Your task to perform on an android device: turn vacation reply on in the gmail app Image 0: 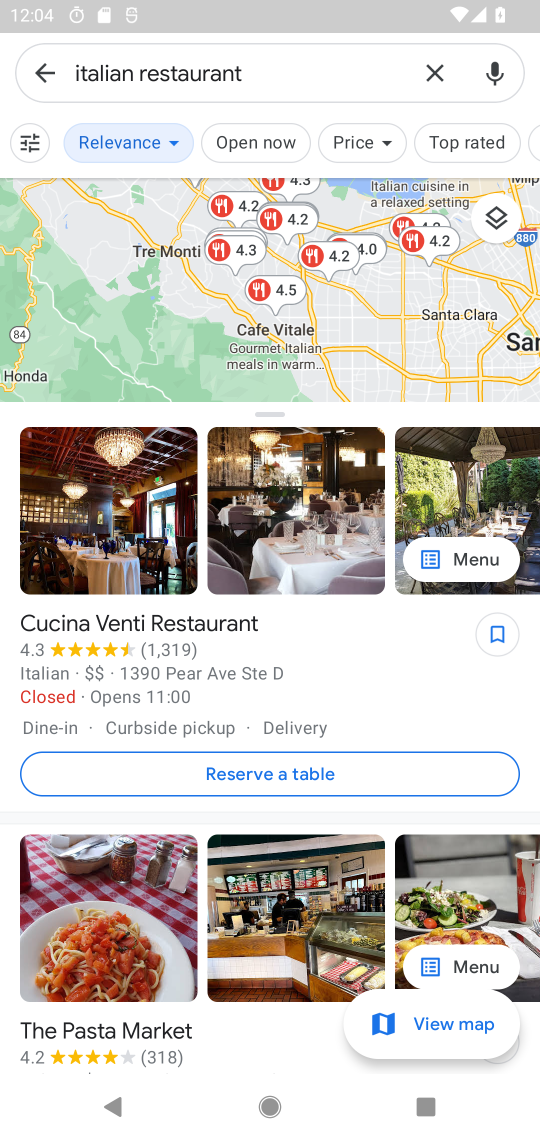
Step 0: press home button
Your task to perform on an android device: turn vacation reply on in the gmail app Image 1: 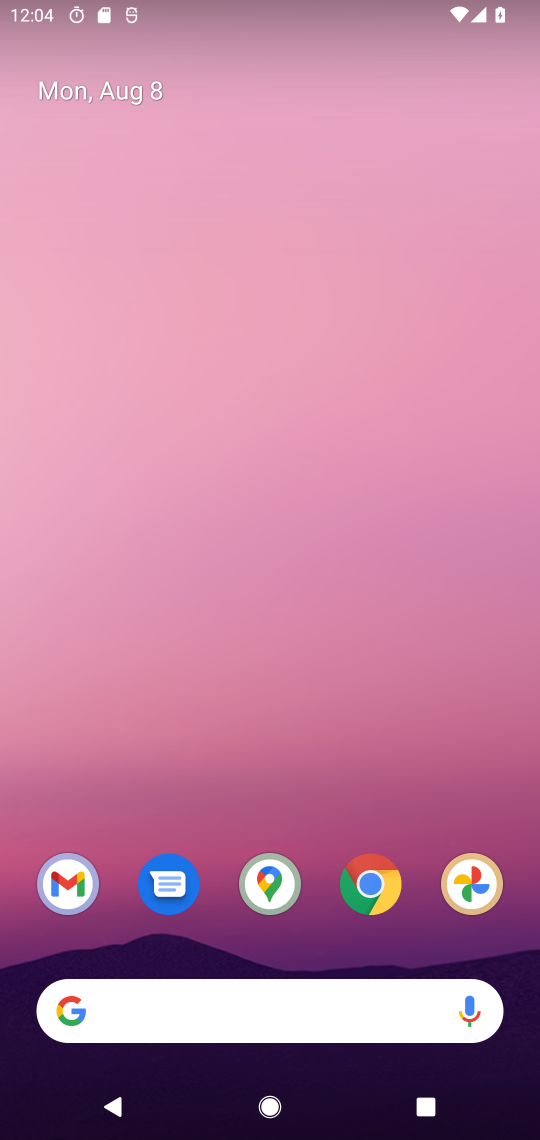
Step 1: click (58, 876)
Your task to perform on an android device: turn vacation reply on in the gmail app Image 2: 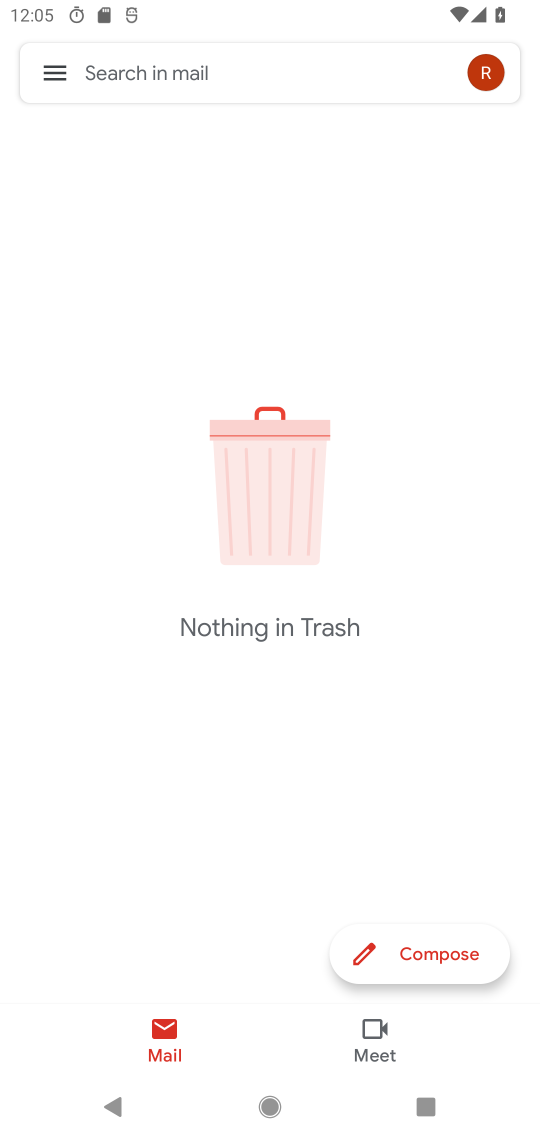
Step 2: click (57, 65)
Your task to perform on an android device: turn vacation reply on in the gmail app Image 3: 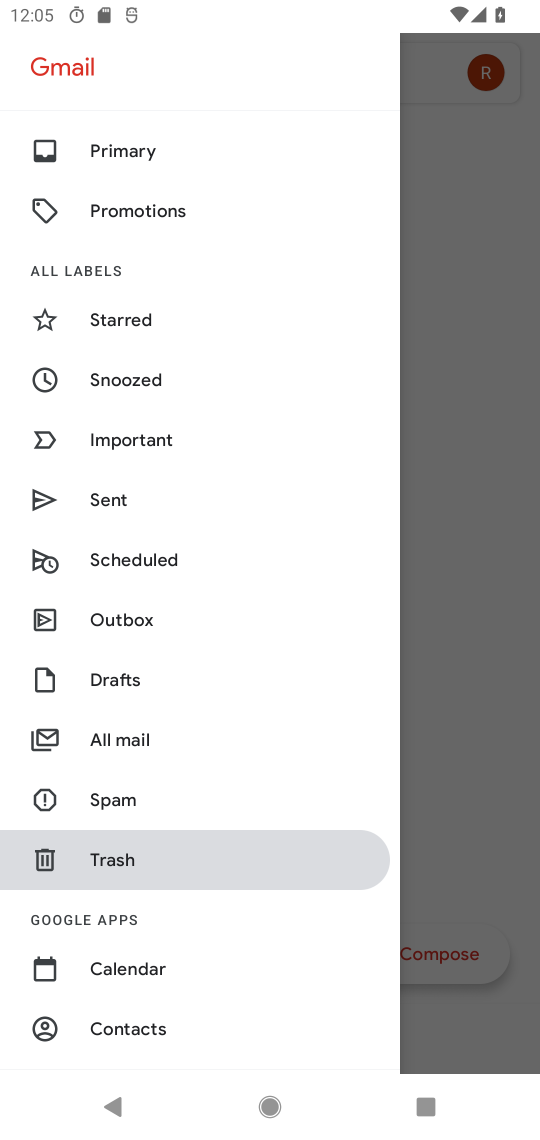
Step 3: drag from (209, 966) to (241, 426)
Your task to perform on an android device: turn vacation reply on in the gmail app Image 4: 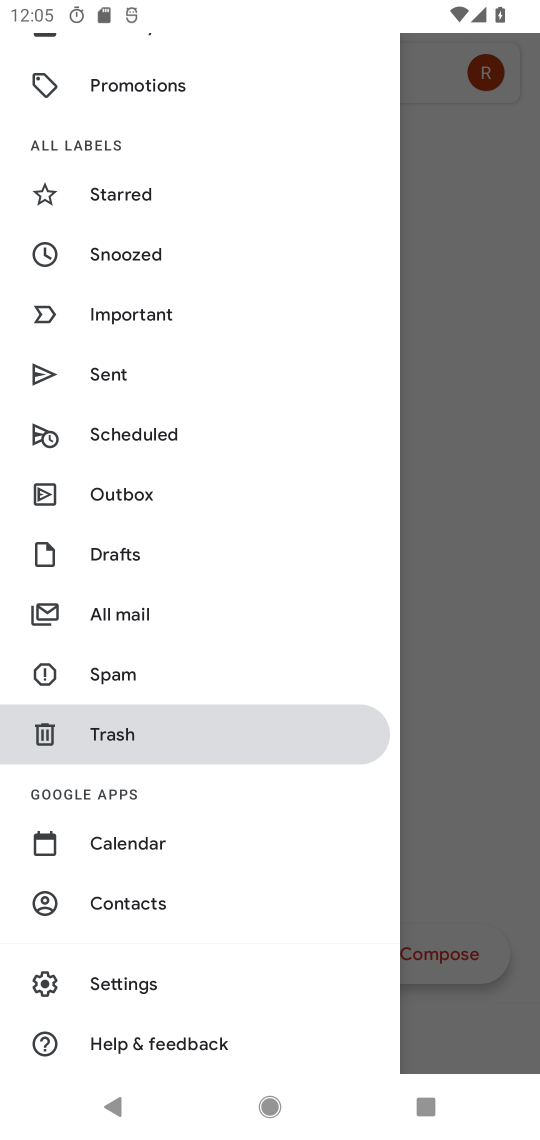
Step 4: click (127, 967)
Your task to perform on an android device: turn vacation reply on in the gmail app Image 5: 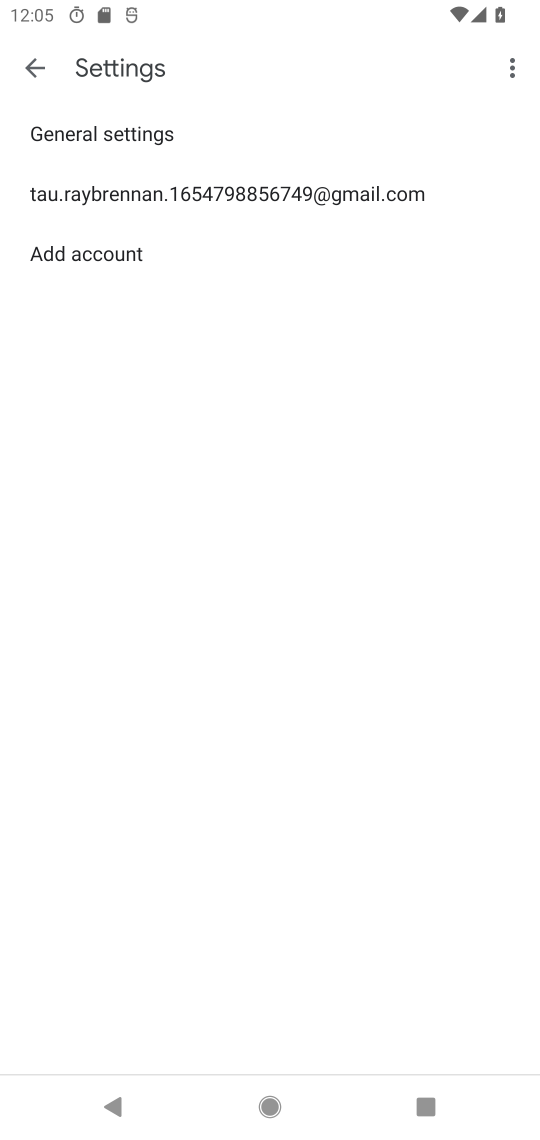
Step 5: click (207, 194)
Your task to perform on an android device: turn vacation reply on in the gmail app Image 6: 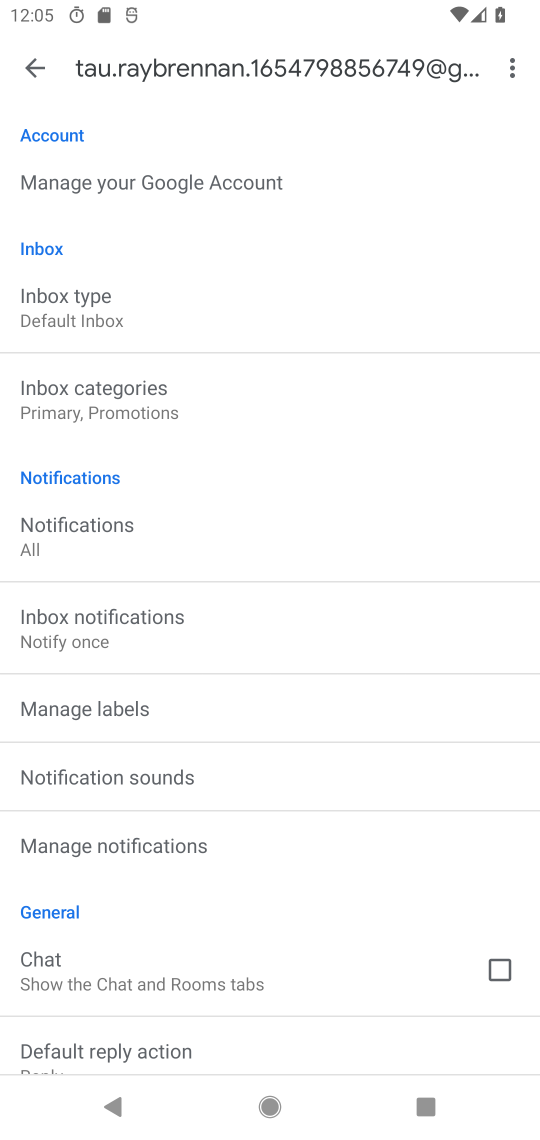
Step 6: drag from (125, 872) to (88, 501)
Your task to perform on an android device: turn vacation reply on in the gmail app Image 7: 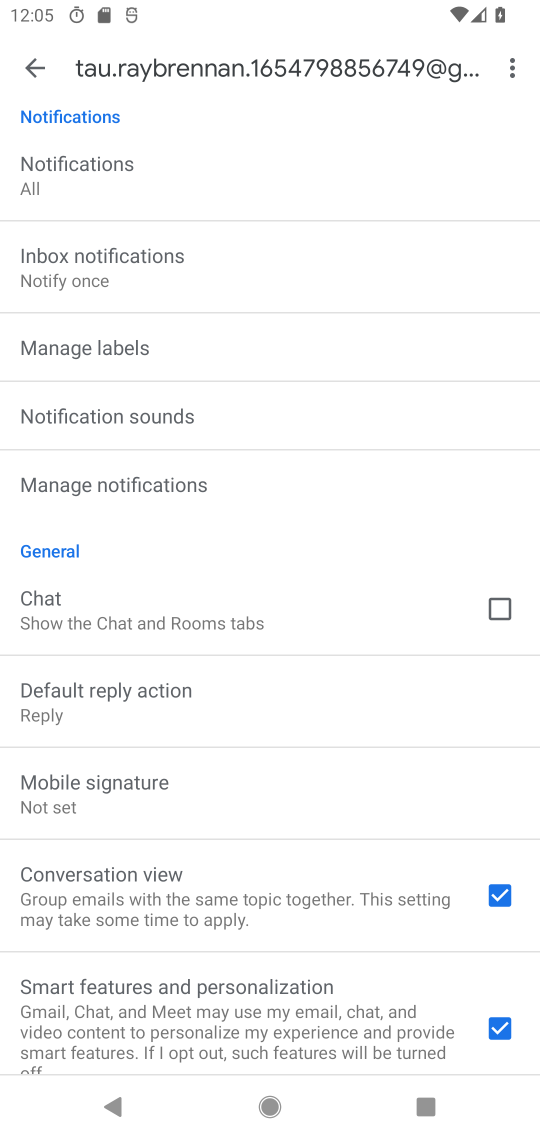
Step 7: drag from (186, 753) to (232, 504)
Your task to perform on an android device: turn vacation reply on in the gmail app Image 8: 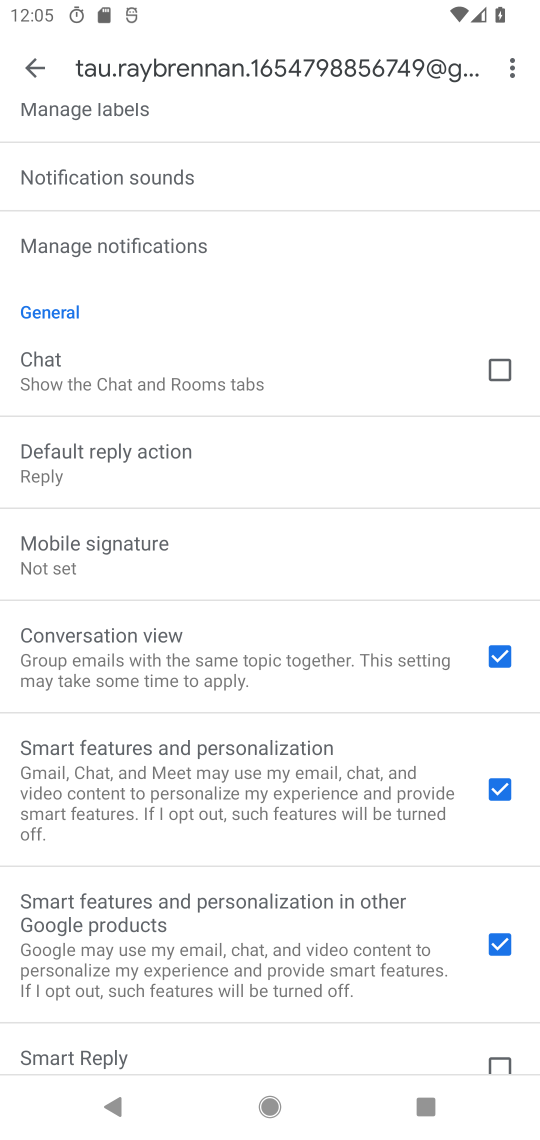
Step 8: drag from (172, 853) to (165, 584)
Your task to perform on an android device: turn vacation reply on in the gmail app Image 9: 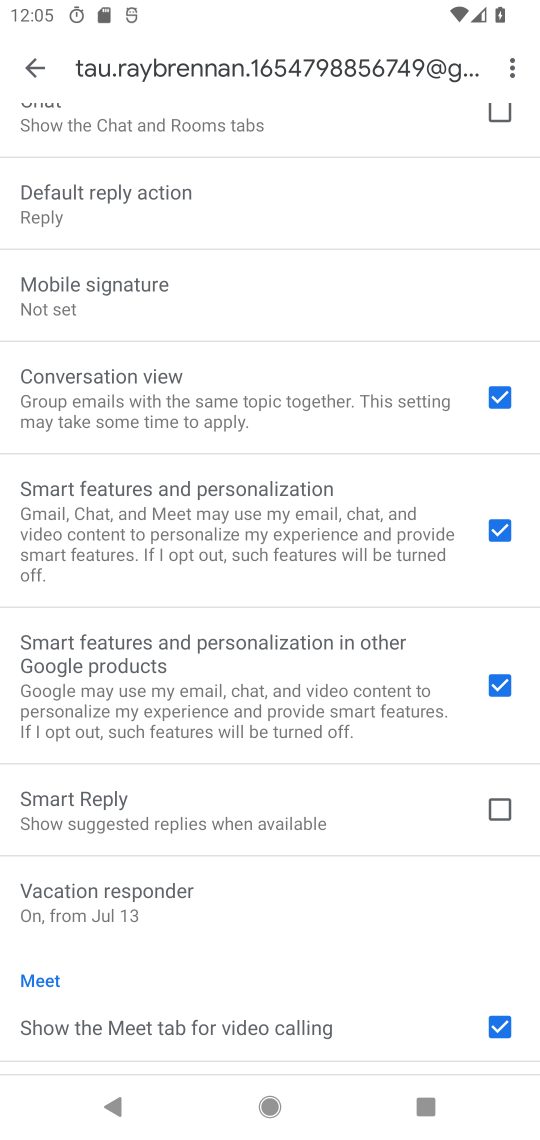
Step 9: click (144, 907)
Your task to perform on an android device: turn vacation reply on in the gmail app Image 10: 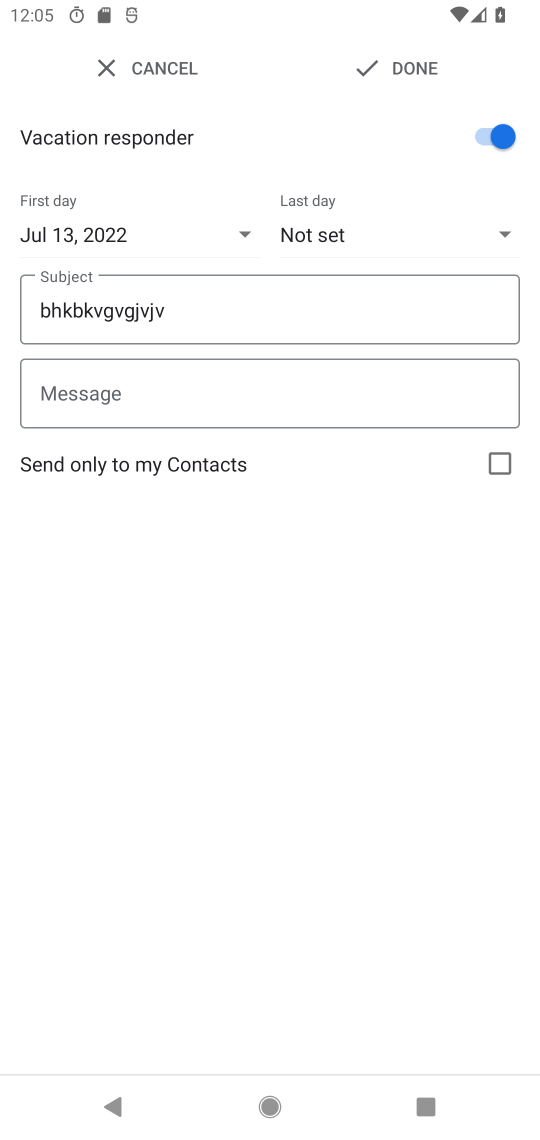
Step 10: click (389, 68)
Your task to perform on an android device: turn vacation reply on in the gmail app Image 11: 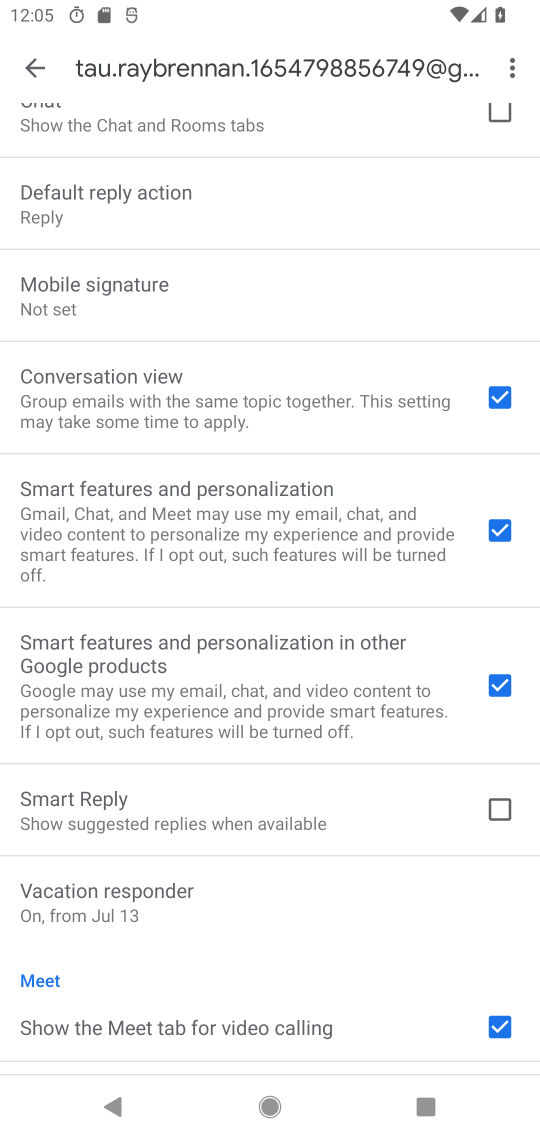
Step 11: task complete